Your task to perform on an android device: open device folders in google photos Image 0: 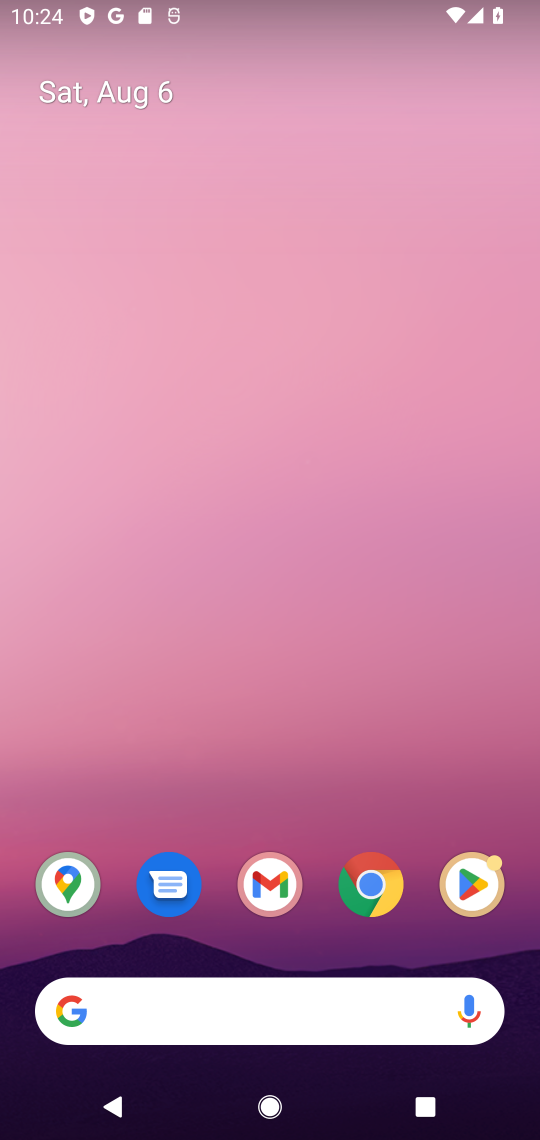
Step 0: drag from (417, 945) to (376, 225)
Your task to perform on an android device: open device folders in google photos Image 1: 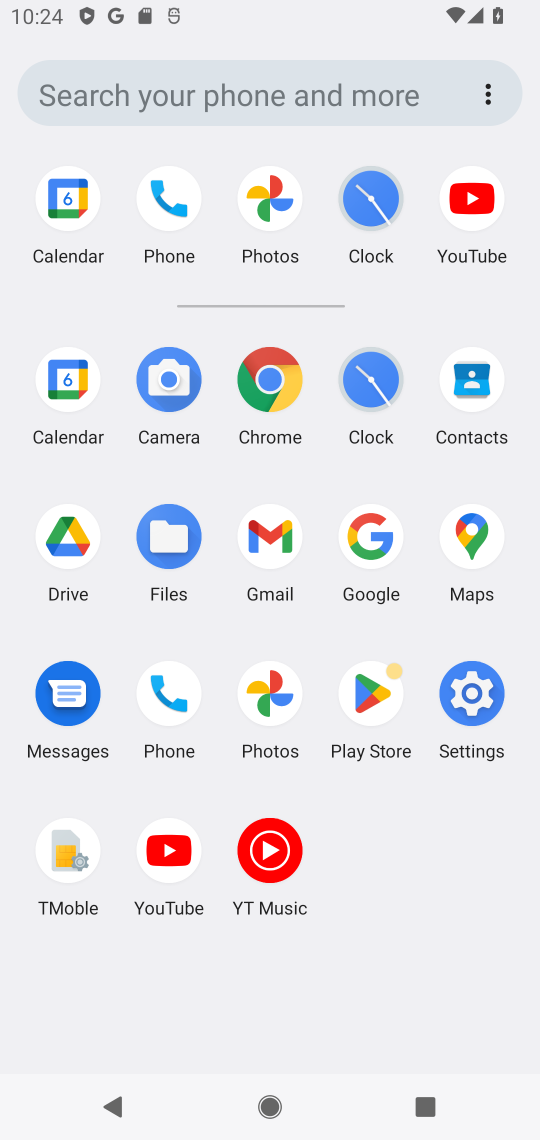
Step 1: click (276, 691)
Your task to perform on an android device: open device folders in google photos Image 2: 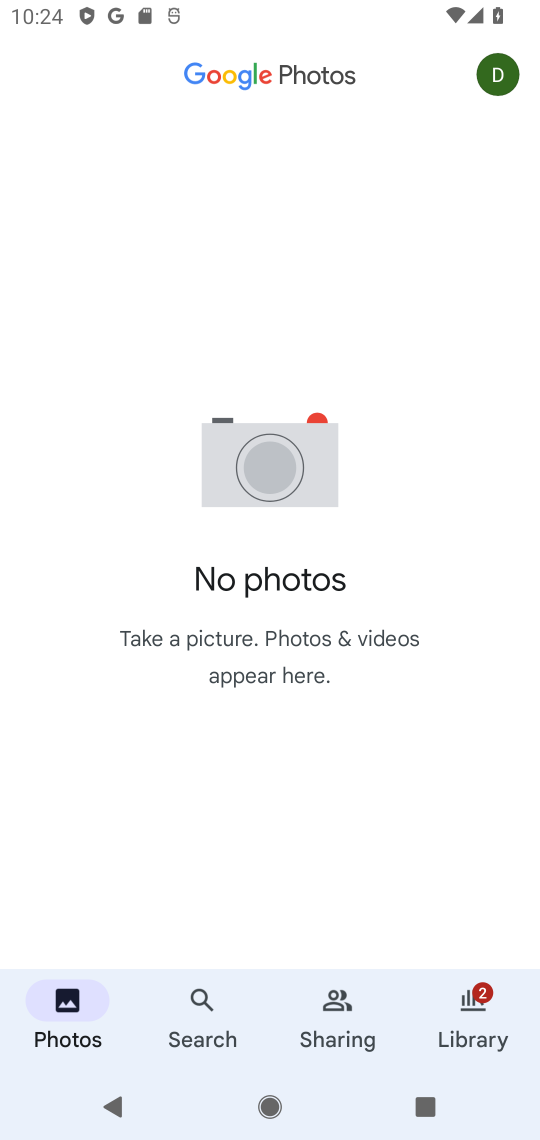
Step 2: click (492, 83)
Your task to perform on an android device: open device folders in google photos Image 3: 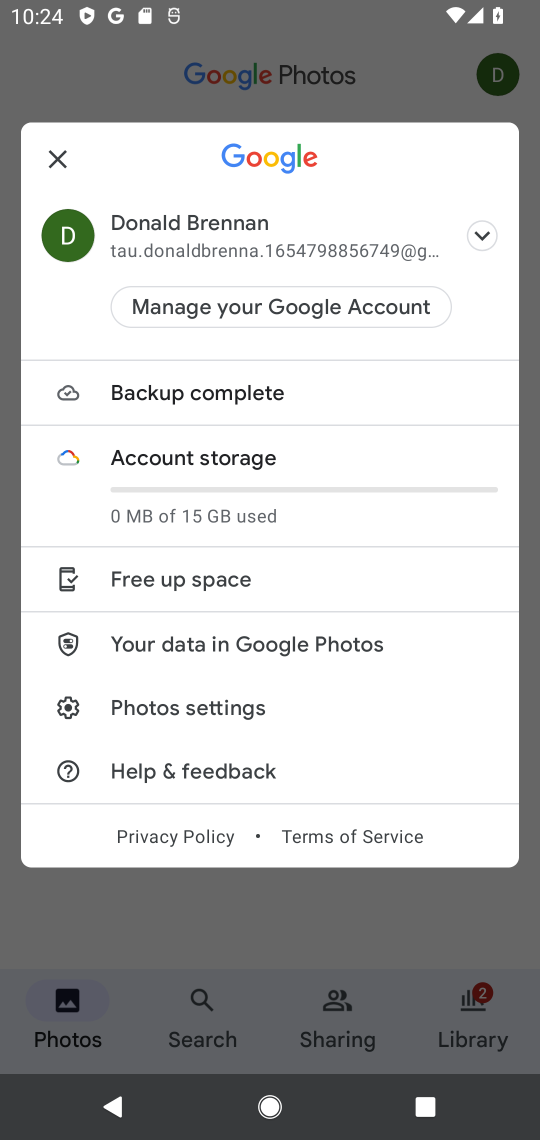
Step 3: task complete